Your task to perform on an android device: open app "ZOOM Cloud Meetings" (install if not already installed) and enter user name: "bauxite@icloud.com" and password: "dim" Image 0: 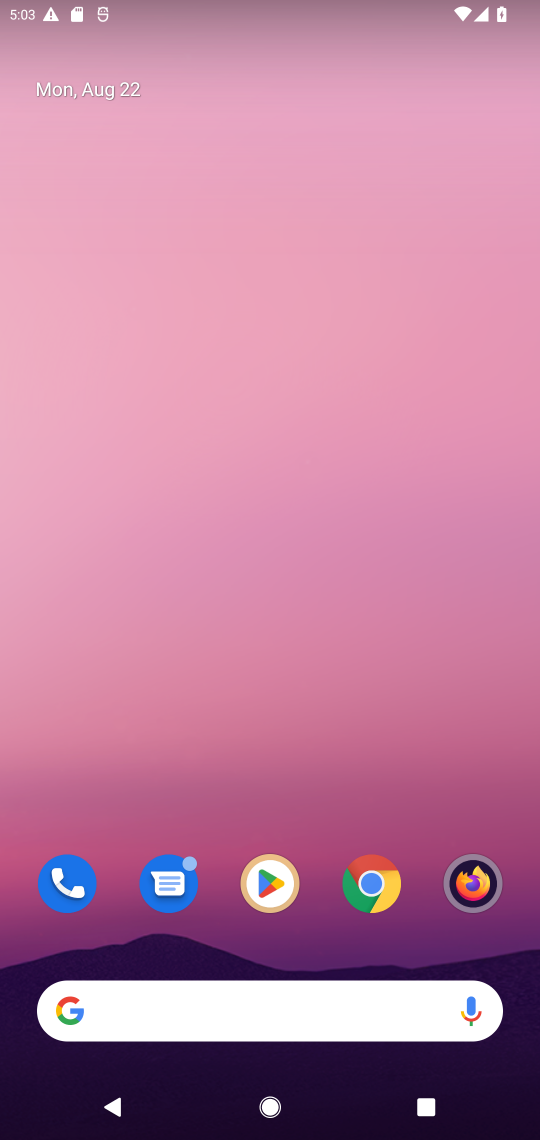
Step 0: drag from (270, 901) to (227, 284)
Your task to perform on an android device: open app "ZOOM Cloud Meetings" (install if not already installed) and enter user name: "bauxite@icloud.com" and password: "dim" Image 1: 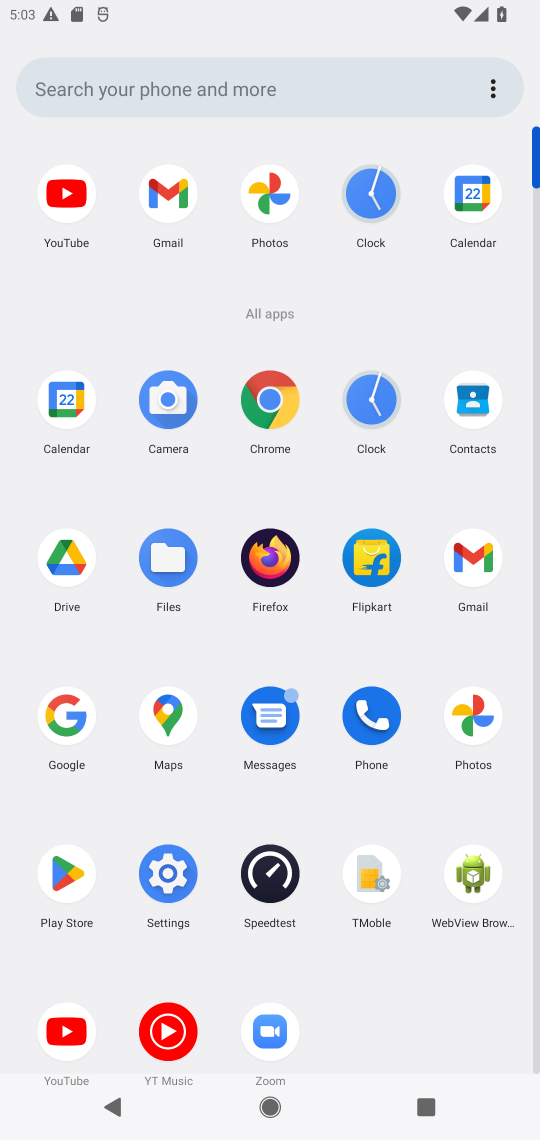
Step 1: click (64, 865)
Your task to perform on an android device: open app "ZOOM Cloud Meetings" (install if not already installed) and enter user name: "bauxite@icloud.com" and password: "dim" Image 2: 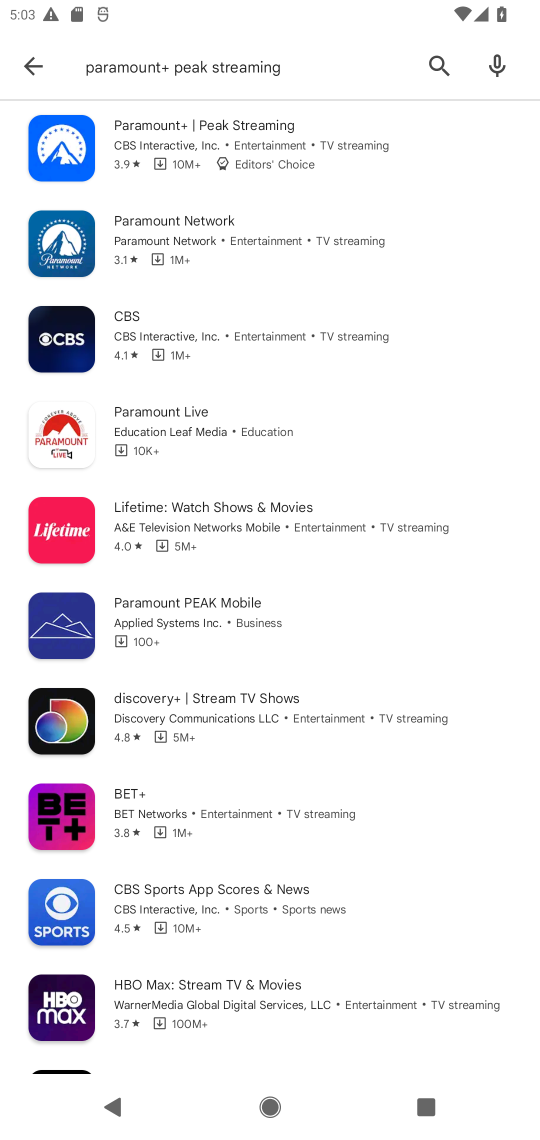
Step 2: click (424, 66)
Your task to perform on an android device: open app "ZOOM Cloud Meetings" (install if not already installed) and enter user name: "bauxite@icloud.com" and password: "dim" Image 3: 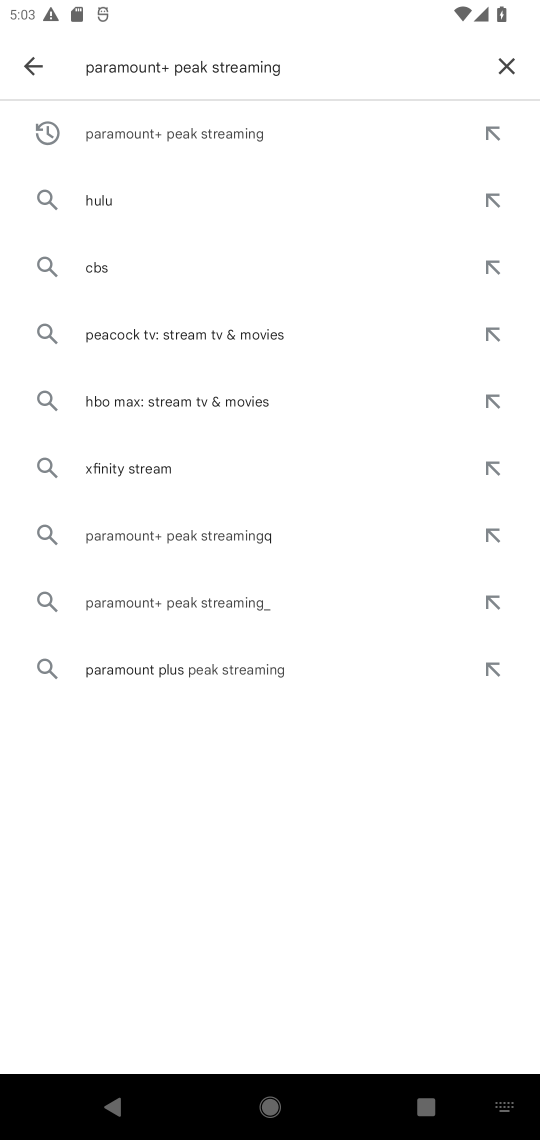
Step 3: click (498, 69)
Your task to perform on an android device: open app "ZOOM Cloud Meetings" (install if not already installed) and enter user name: "bauxite@icloud.com" and password: "dim" Image 4: 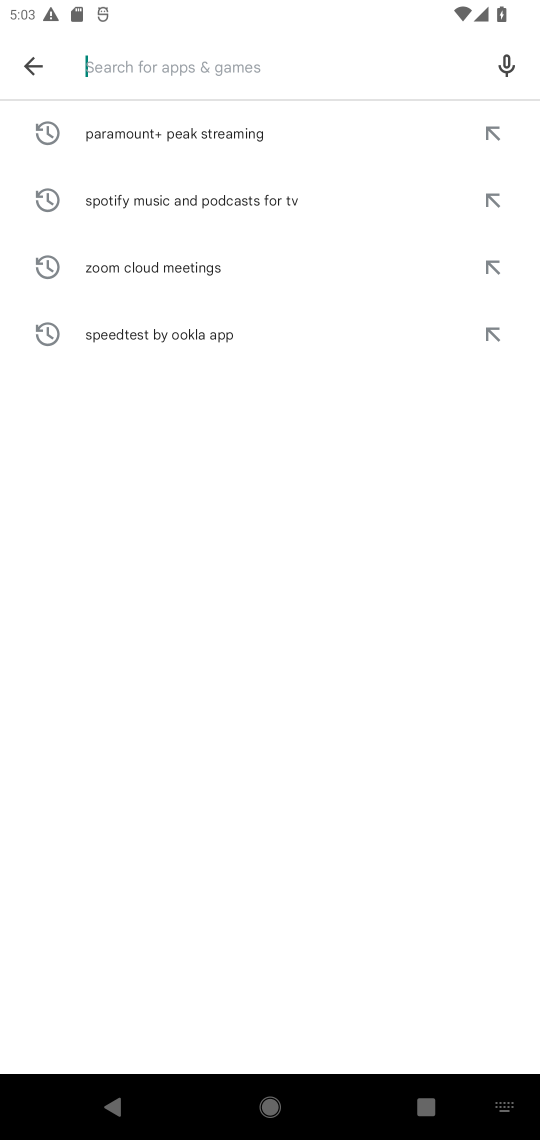
Step 4: click (262, 73)
Your task to perform on an android device: open app "ZOOM Cloud Meetings" (install if not already installed) and enter user name: "bauxite@icloud.com" and password: "dim" Image 5: 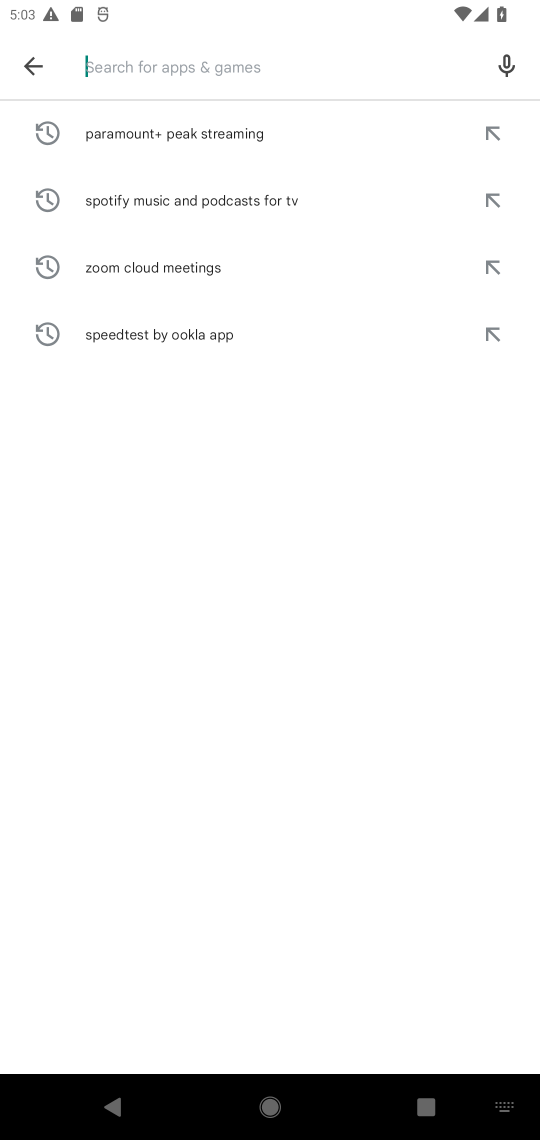
Step 5: type "ZOOM Cloud Meetings"
Your task to perform on an android device: open app "ZOOM Cloud Meetings" (install if not already installed) and enter user name: "bauxite@icloud.com" and password: "dim" Image 6: 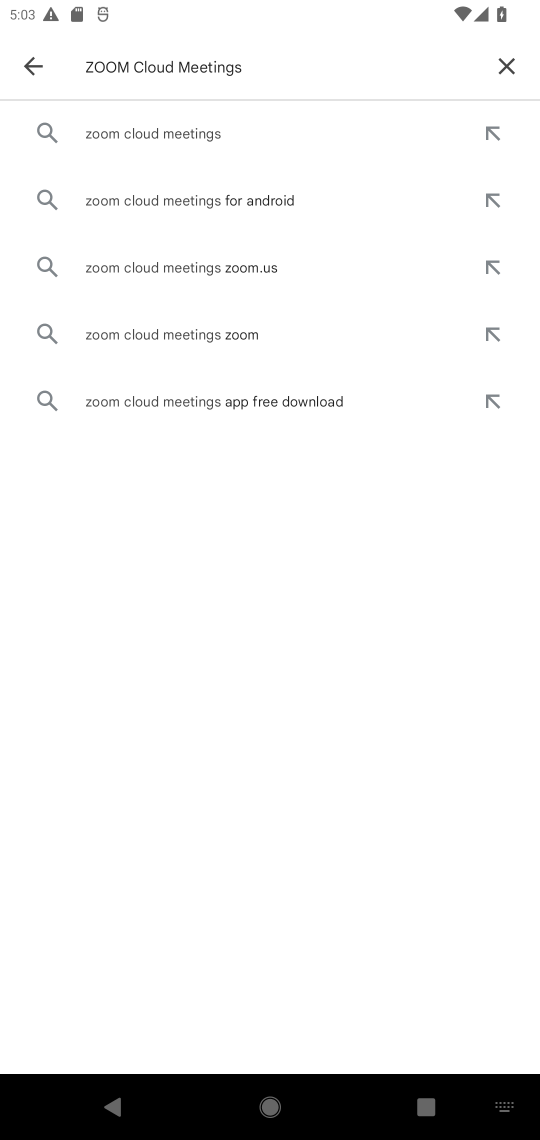
Step 6: click (137, 137)
Your task to perform on an android device: open app "ZOOM Cloud Meetings" (install if not already installed) and enter user name: "bauxite@icloud.com" and password: "dim" Image 7: 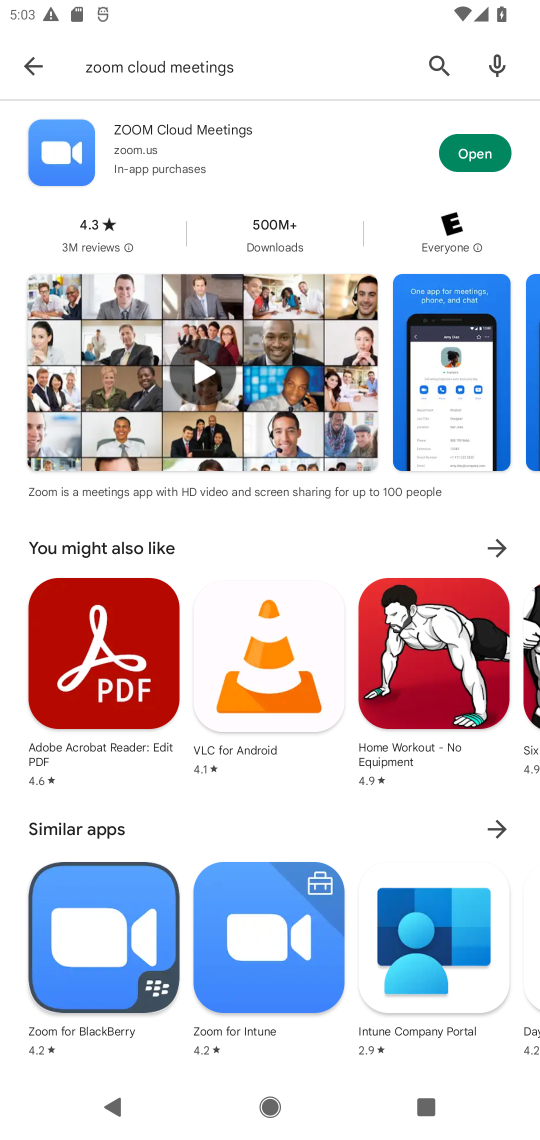
Step 7: click (467, 157)
Your task to perform on an android device: open app "ZOOM Cloud Meetings" (install if not already installed) and enter user name: "bauxite@icloud.com" and password: "dim" Image 8: 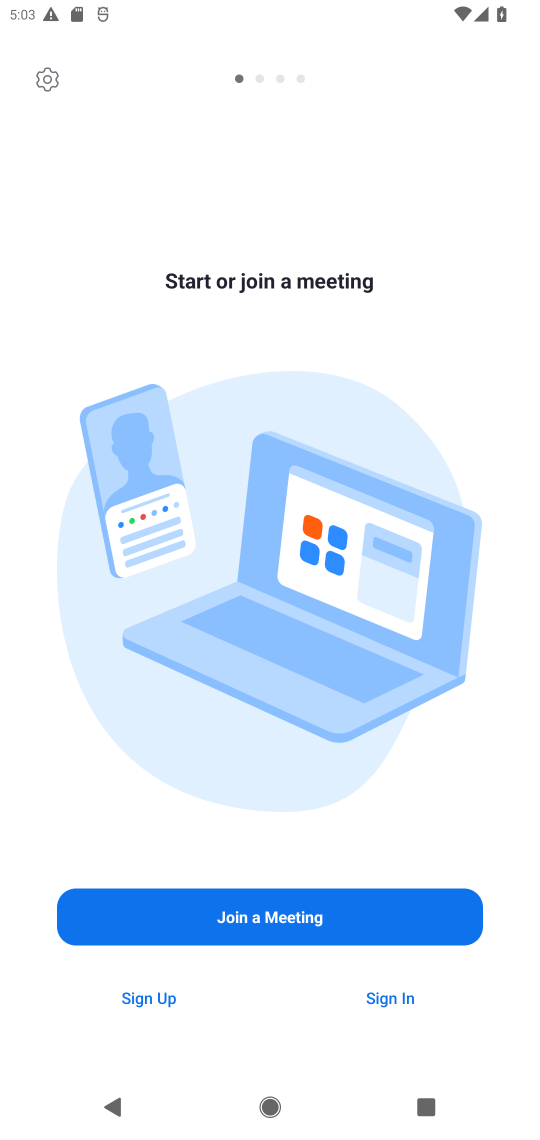
Step 8: task complete